Your task to perform on an android device: uninstall "Adobe Express: Graphic Design" Image 0: 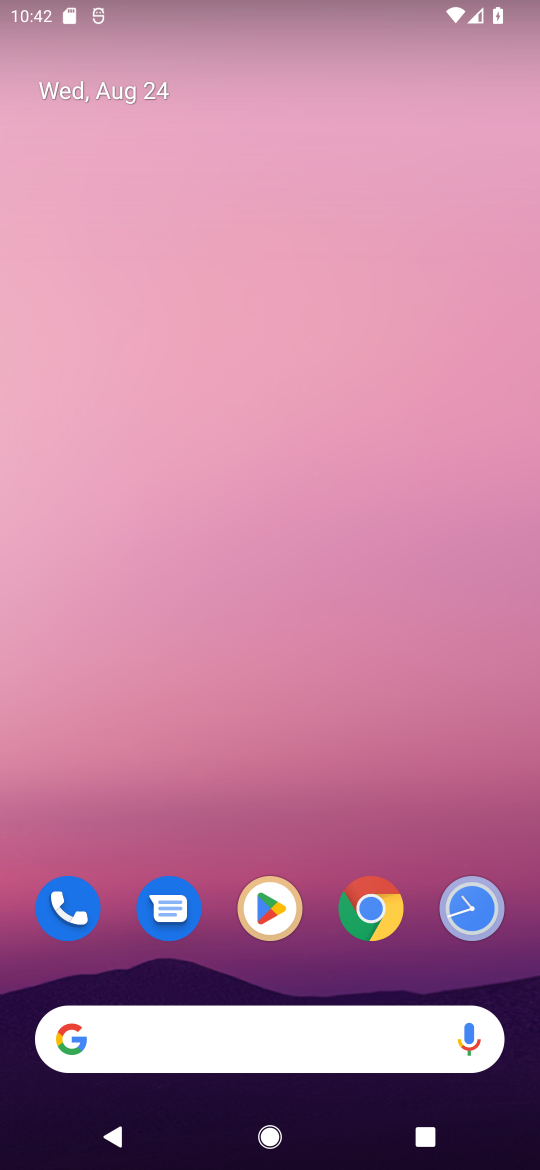
Step 0: click (259, 901)
Your task to perform on an android device: uninstall "Adobe Express: Graphic Design" Image 1: 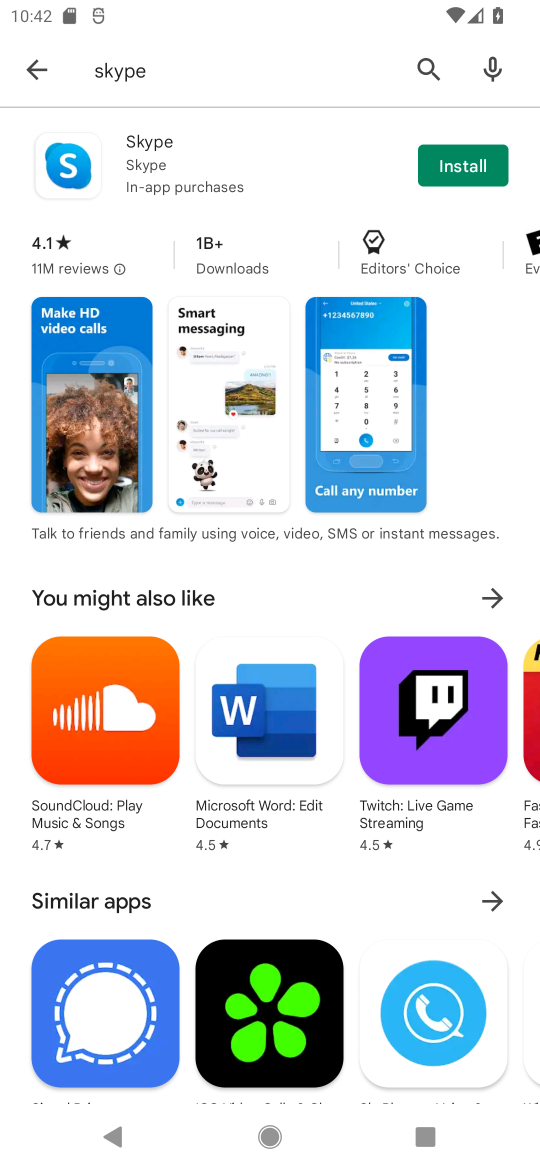
Step 1: click (45, 74)
Your task to perform on an android device: uninstall "Adobe Express: Graphic Design" Image 2: 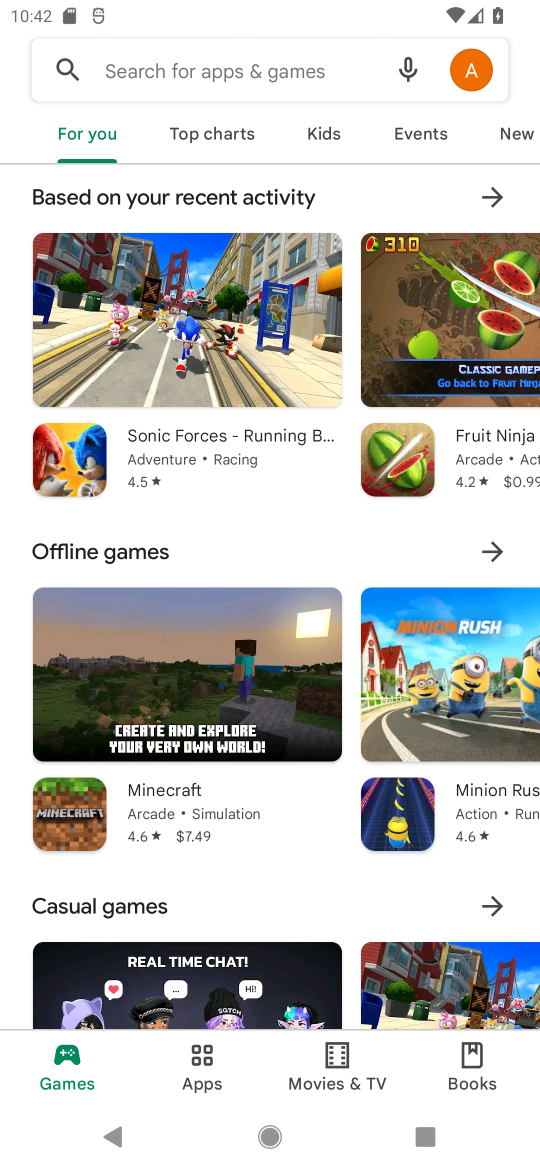
Step 2: click (182, 79)
Your task to perform on an android device: uninstall "Adobe Express: Graphic Design" Image 3: 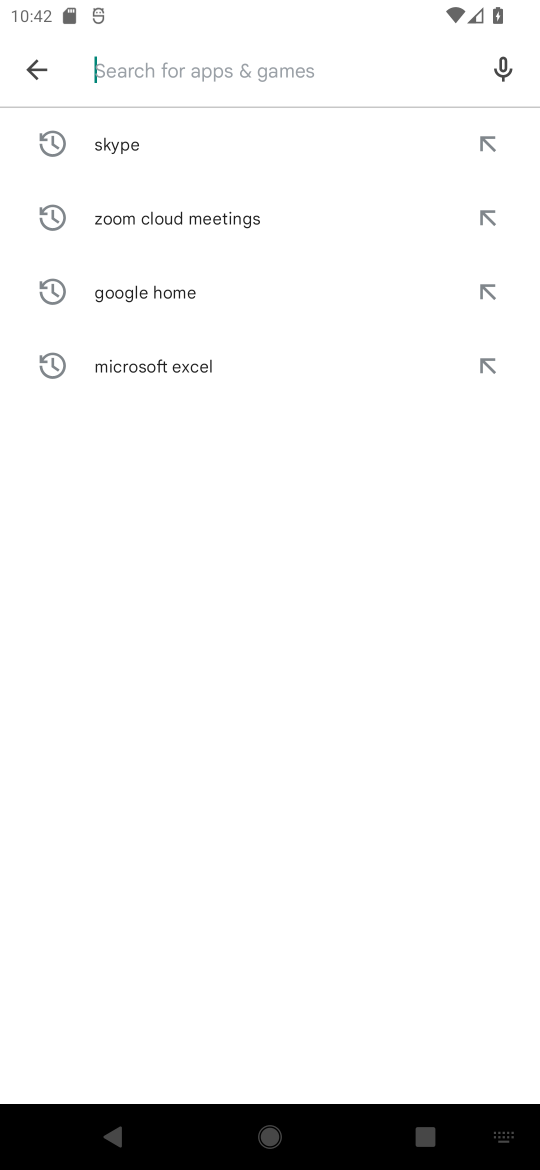
Step 3: type "Adobe Express: Graphic Design"
Your task to perform on an android device: uninstall "Adobe Express: Graphic Design" Image 4: 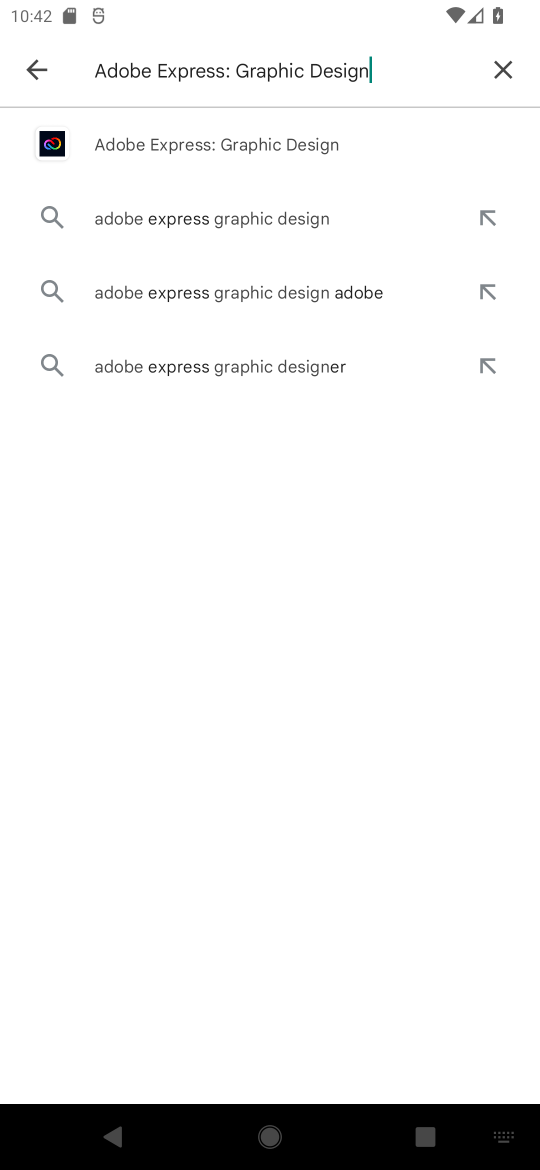
Step 4: click (117, 141)
Your task to perform on an android device: uninstall "Adobe Express: Graphic Design" Image 5: 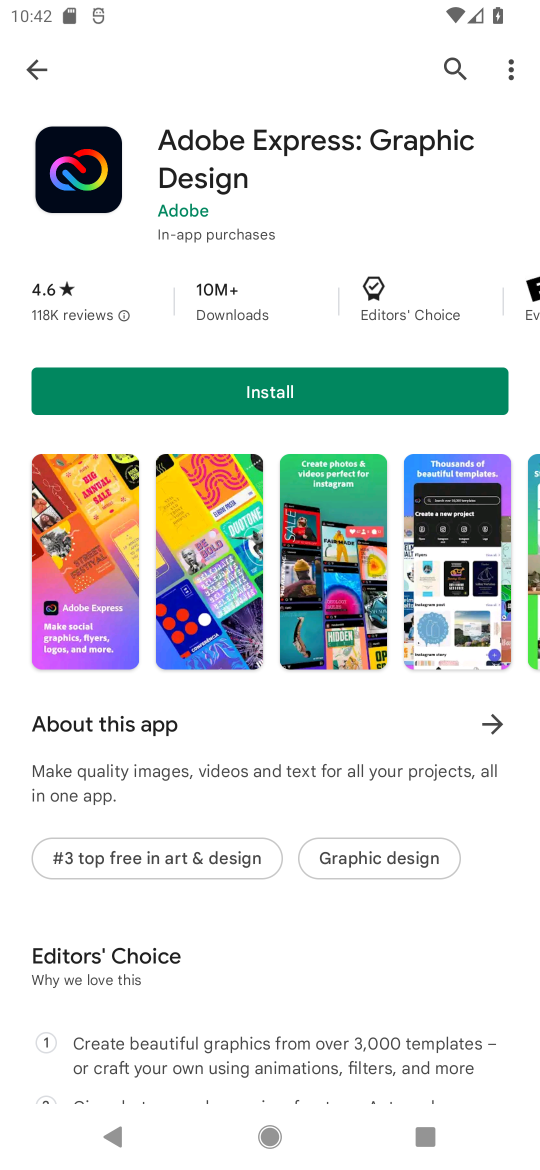
Step 5: task complete